Your task to perform on an android device: Open the Play Movies app and select the watchlist tab. Image 0: 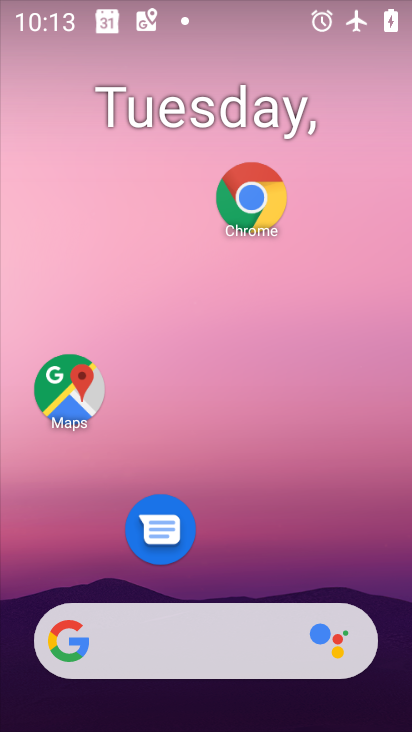
Step 0: drag from (269, 507) to (312, 203)
Your task to perform on an android device: Open the Play Movies app and select the watchlist tab. Image 1: 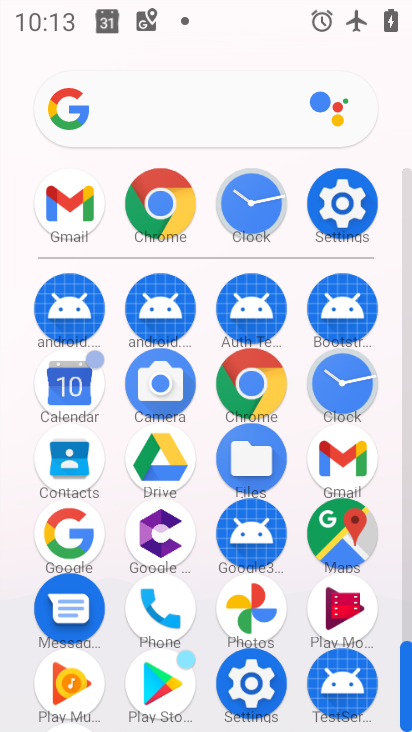
Step 1: drag from (403, 716) to (345, 726)
Your task to perform on an android device: Open the Play Movies app and select the watchlist tab. Image 2: 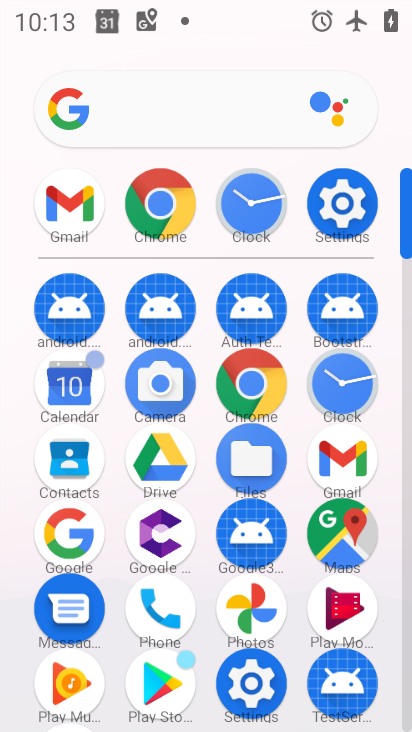
Step 2: click (406, 600)
Your task to perform on an android device: Open the Play Movies app and select the watchlist tab. Image 3: 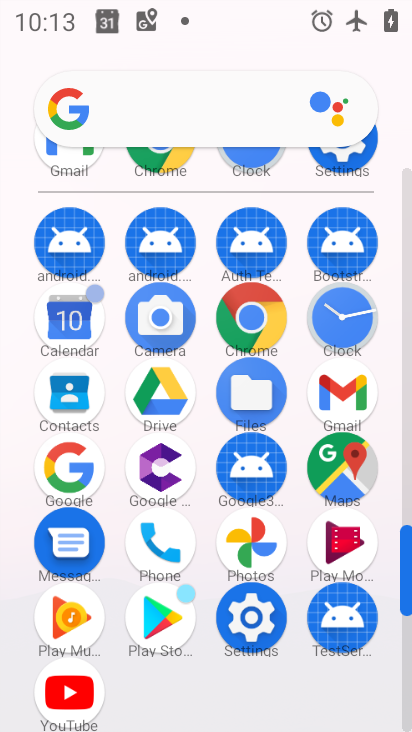
Step 3: click (83, 677)
Your task to perform on an android device: Open the Play Movies app and select the watchlist tab. Image 4: 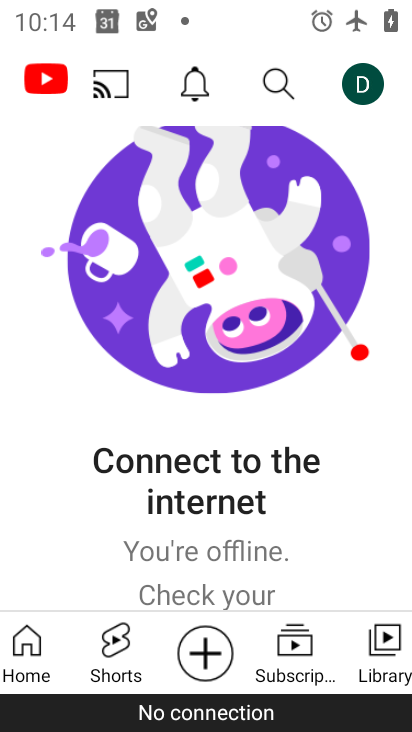
Step 4: press back button
Your task to perform on an android device: Open the Play Movies app and select the watchlist tab. Image 5: 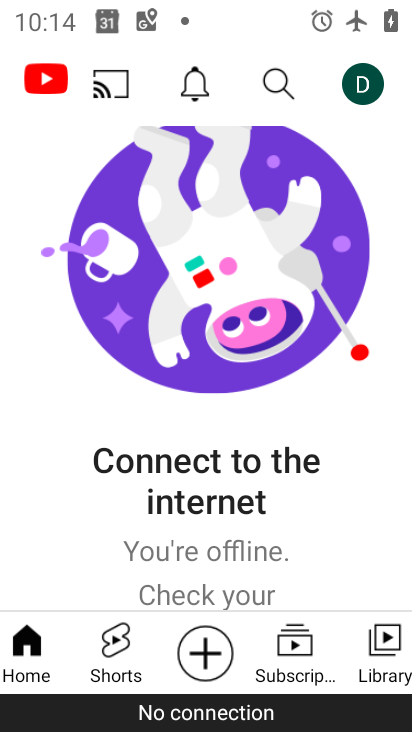
Step 5: press back button
Your task to perform on an android device: Open the Play Movies app and select the watchlist tab. Image 6: 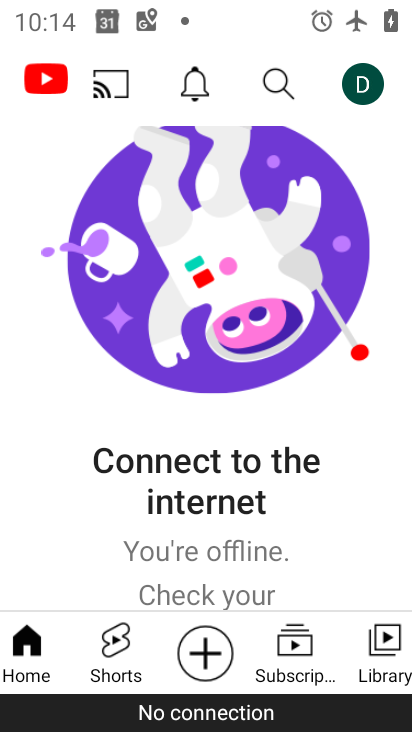
Step 6: press back button
Your task to perform on an android device: Open the Play Movies app and select the watchlist tab. Image 7: 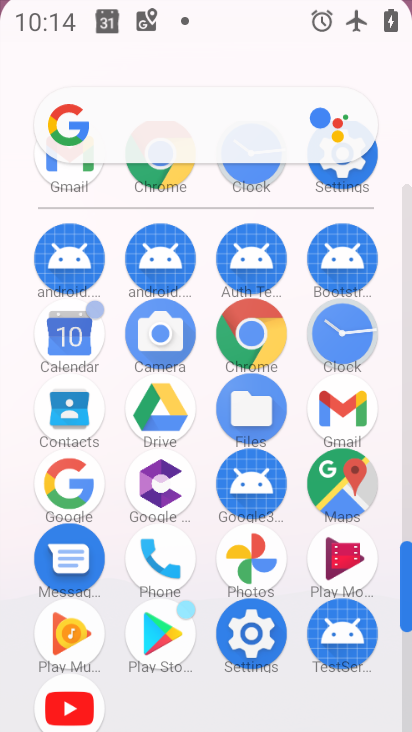
Step 7: press back button
Your task to perform on an android device: Open the Play Movies app and select the watchlist tab. Image 8: 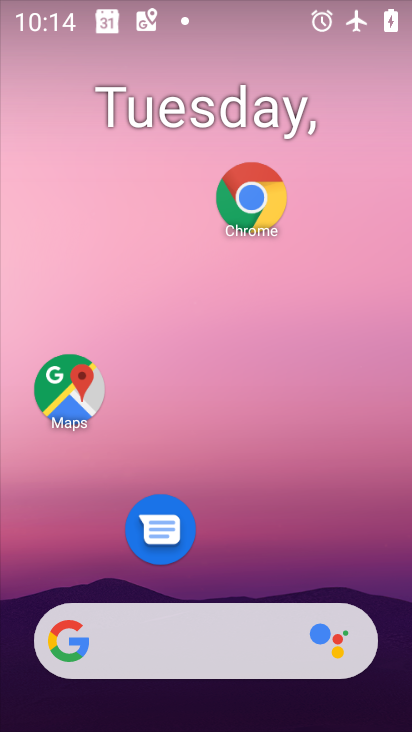
Step 8: drag from (376, 475) to (367, 128)
Your task to perform on an android device: Open the Play Movies app and select the watchlist tab. Image 9: 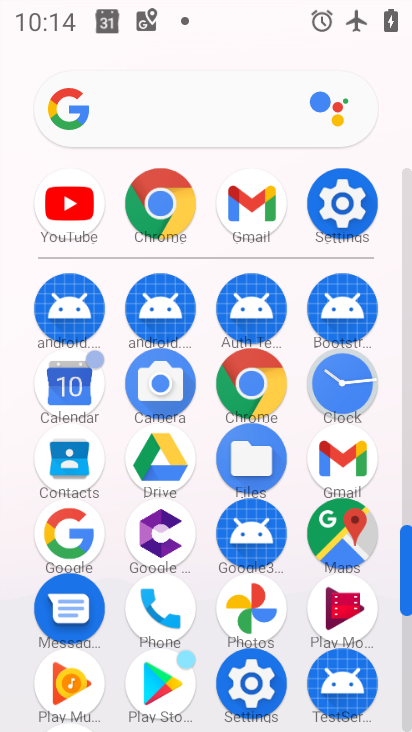
Step 9: click (326, 607)
Your task to perform on an android device: Open the Play Movies app and select the watchlist tab. Image 10: 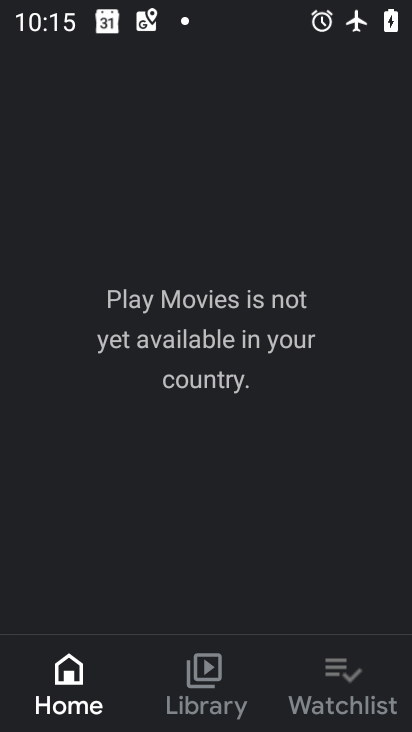
Step 10: click (385, 682)
Your task to perform on an android device: Open the Play Movies app and select the watchlist tab. Image 11: 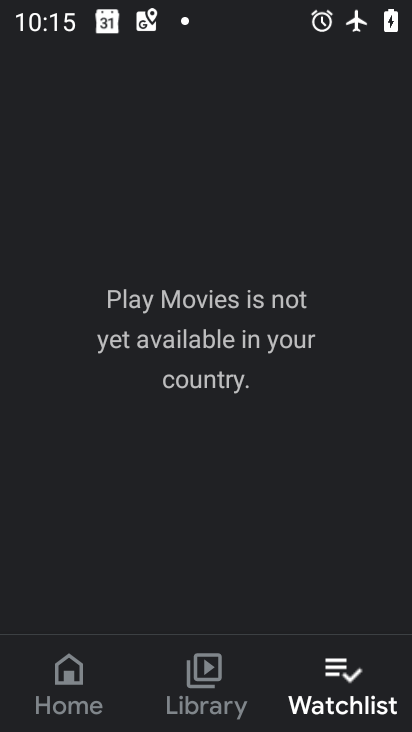
Step 11: task complete